Your task to perform on an android device: Go to accessibility settings Image 0: 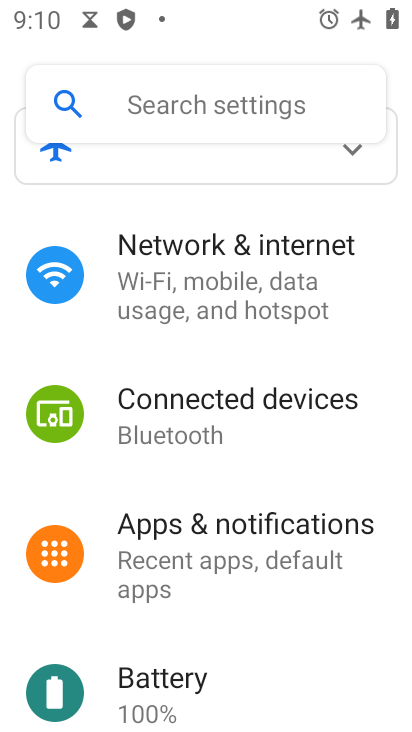
Step 0: press home button
Your task to perform on an android device: Go to accessibility settings Image 1: 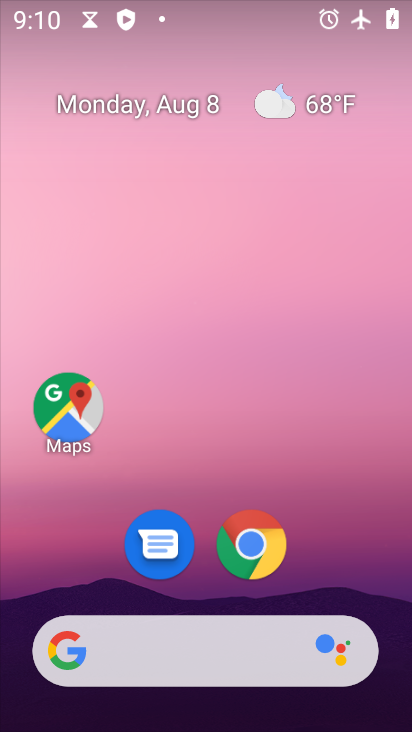
Step 1: drag from (208, 594) to (197, 17)
Your task to perform on an android device: Go to accessibility settings Image 2: 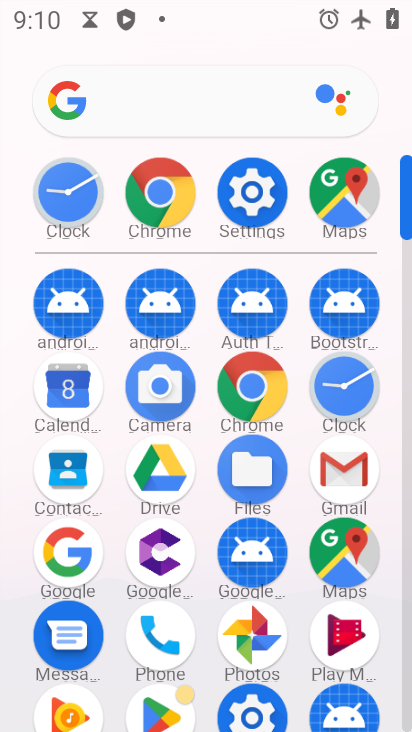
Step 2: click (253, 178)
Your task to perform on an android device: Go to accessibility settings Image 3: 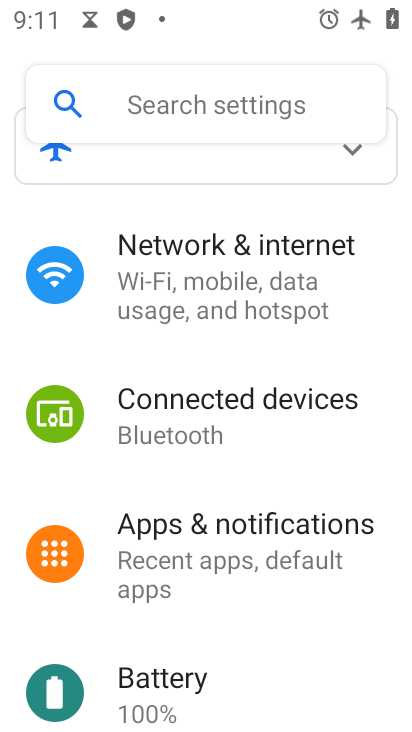
Step 3: drag from (260, 688) to (245, 155)
Your task to perform on an android device: Go to accessibility settings Image 4: 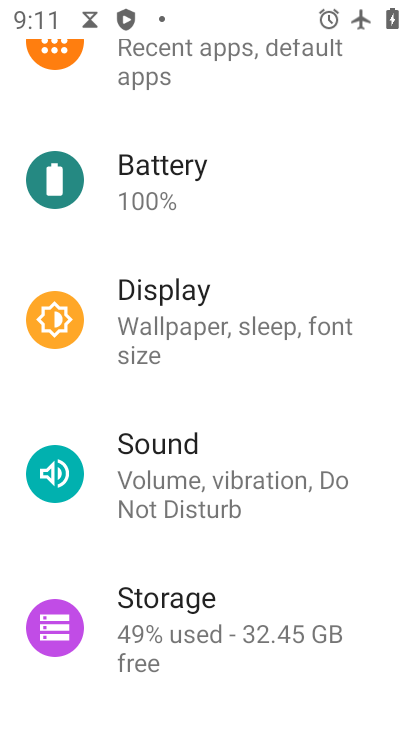
Step 4: drag from (230, 671) to (256, 23)
Your task to perform on an android device: Go to accessibility settings Image 5: 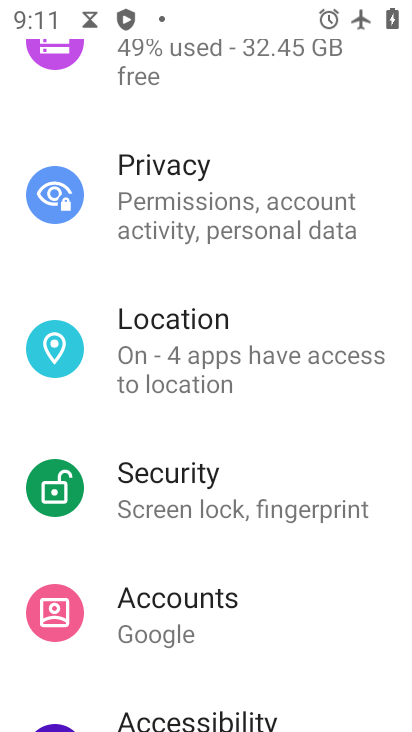
Step 5: click (285, 716)
Your task to perform on an android device: Go to accessibility settings Image 6: 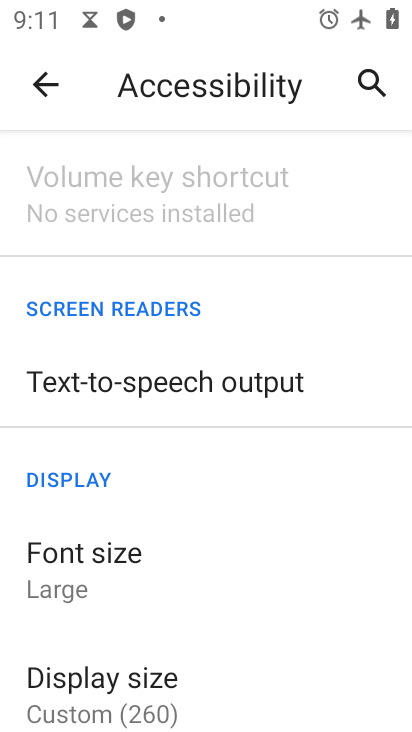
Step 6: task complete